Your task to perform on an android device: Open privacy settings Image 0: 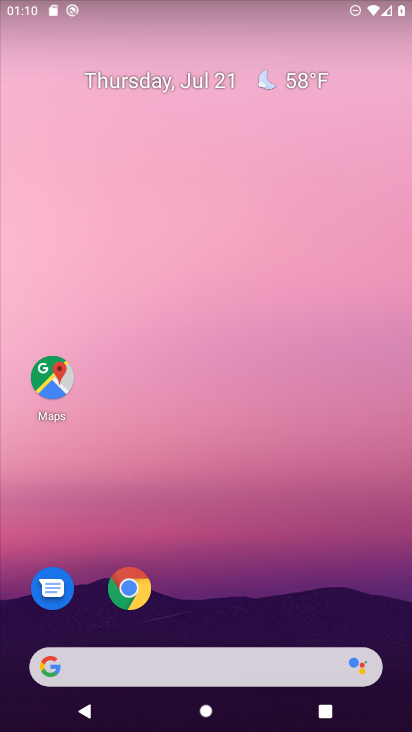
Step 0: drag from (228, 570) to (326, 43)
Your task to perform on an android device: Open privacy settings Image 1: 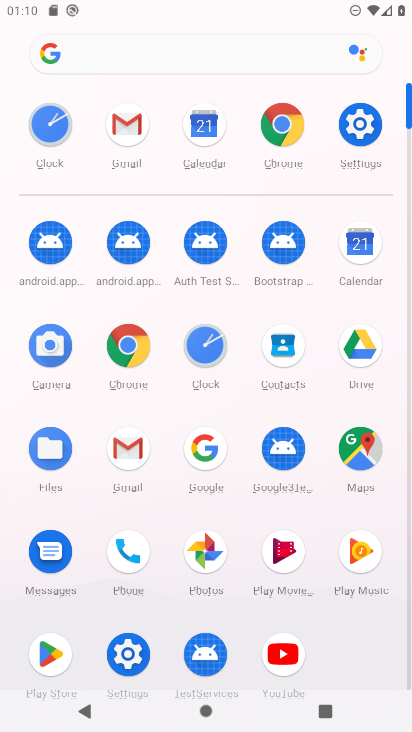
Step 1: click (361, 140)
Your task to perform on an android device: Open privacy settings Image 2: 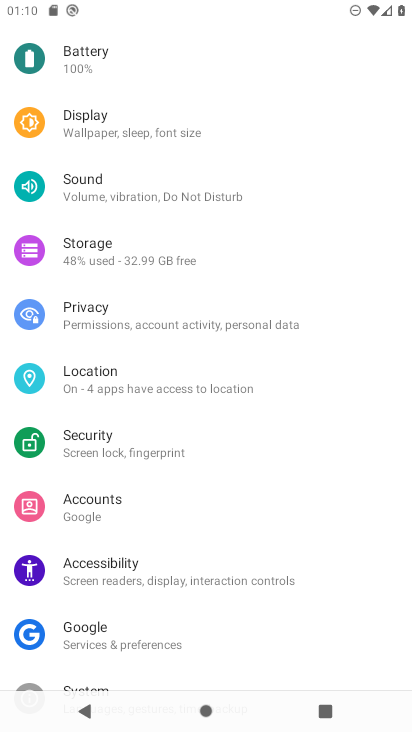
Step 2: click (98, 305)
Your task to perform on an android device: Open privacy settings Image 3: 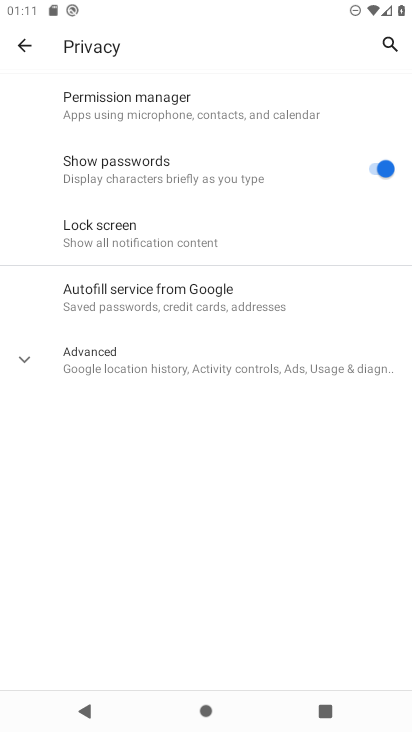
Step 3: task complete